Your task to perform on an android device: empty trash in the gmail app Image 0: 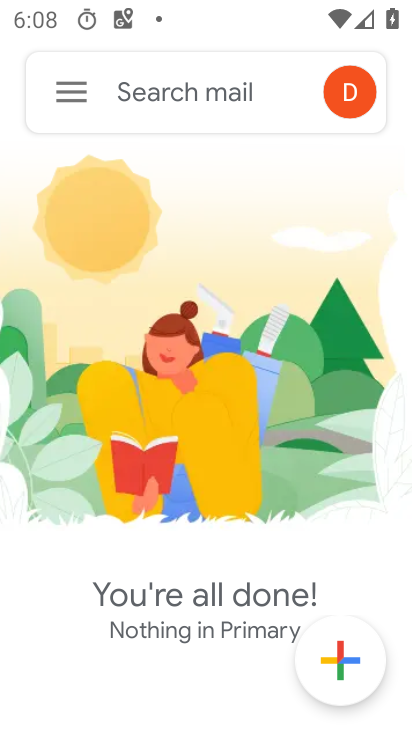
Step 0: press home button
Your task to perform on an android device: empty trash in the gmail app Image 1: 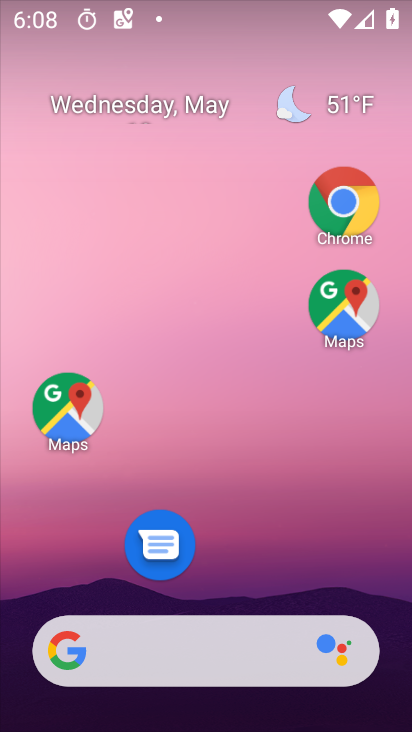
Step 1: drag from (203, 252) to (205, 167)
Your task to perform on an android device: empty trash in the gmail app Image 2: 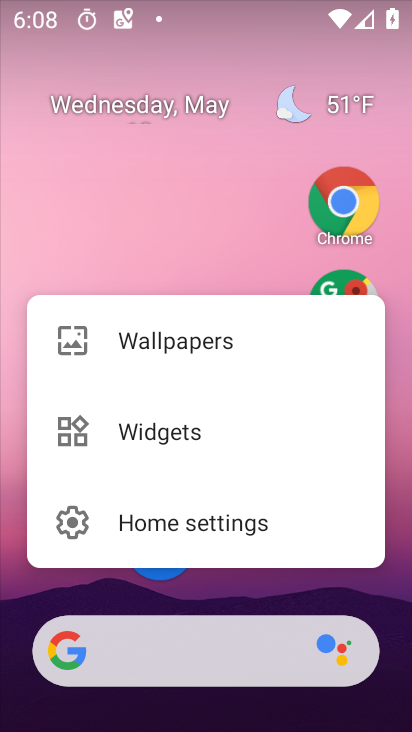
Step 2: click (250, 586)
Your task to perform on an android device: empty trash in the gmail app Image 3: 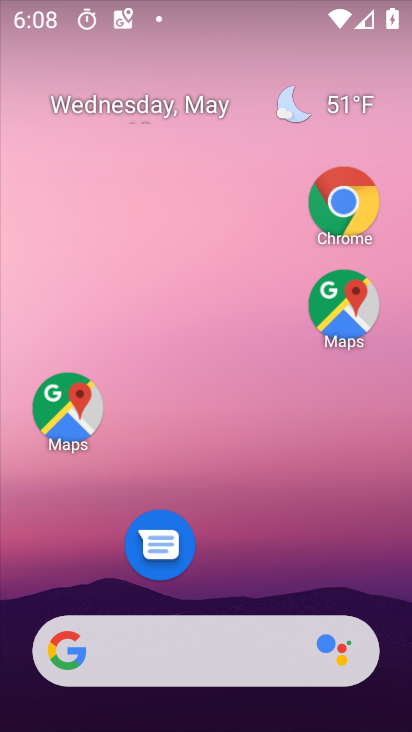
Step 3: drag from (257, 579) to (233, 41)
Your task to perform on an android device: empty trash in the gmail app Image 4: 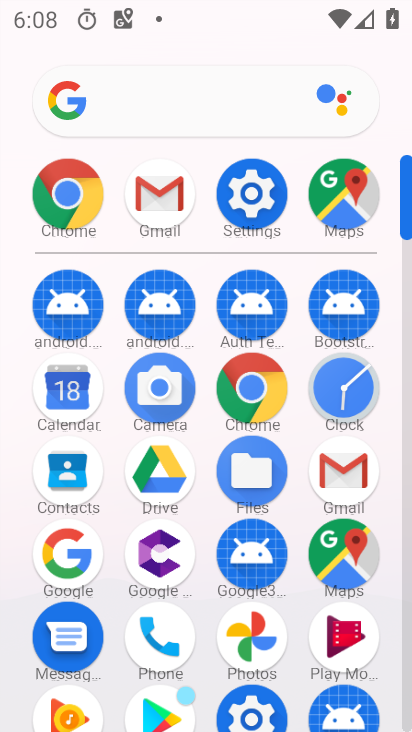
Step 4: click (156, 191)
Your task to perform on an android device: empty trash in the gmail app Image 5: 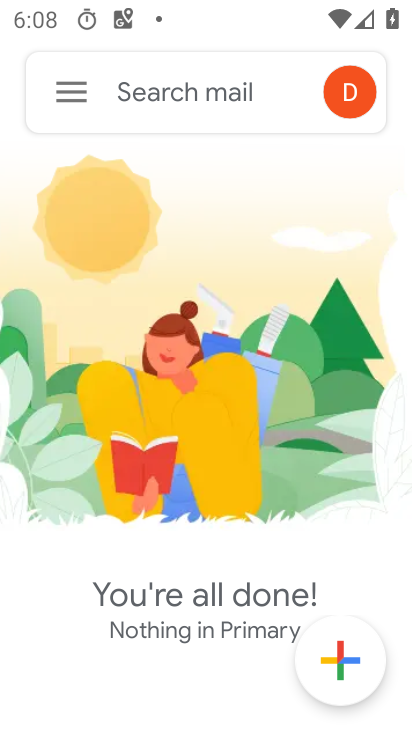
Step 5: click (60, 95)
Your task to perform on an android device: empty trash in the gmail app Image 6: 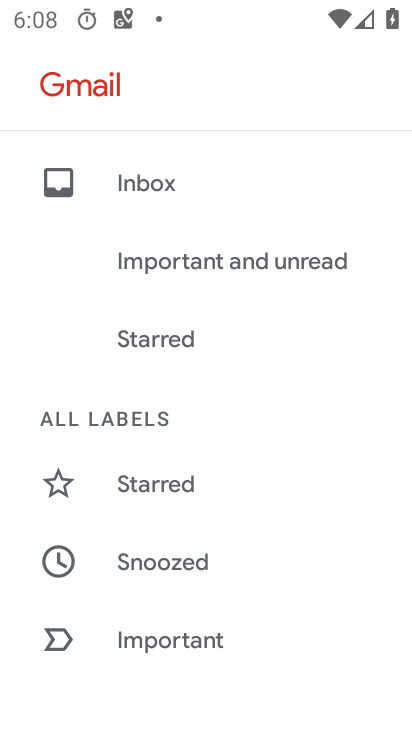
Step 6: drag from (182, 580) to (198, 123)
Your task to perform on an android device: empty trash in the gmail app Image 7: 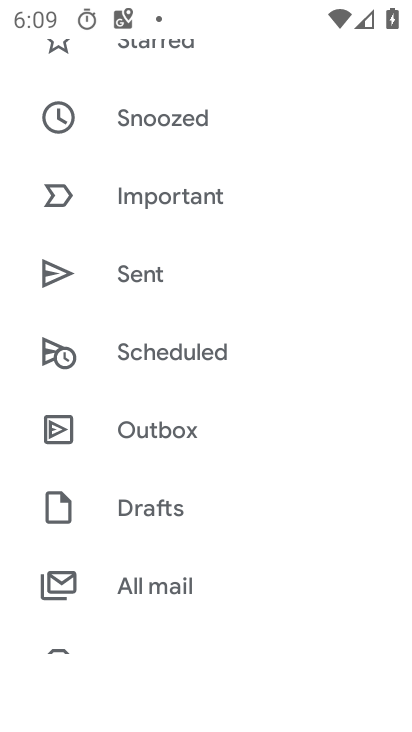
Step 7: drag from (197, 553) to (164, 173)
Your task to perform on an android device: empty trash in the gmail app Image 8: 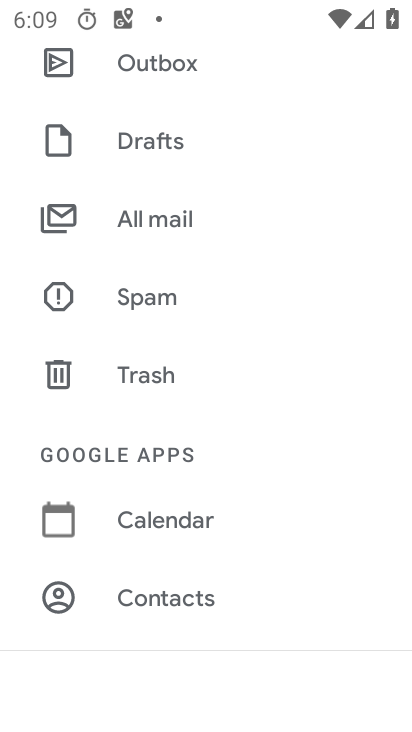
Step 8: drag from (208, 523) to (180, 50)
Your task to perform on an android device: empty trash in the gmail app Image 9: 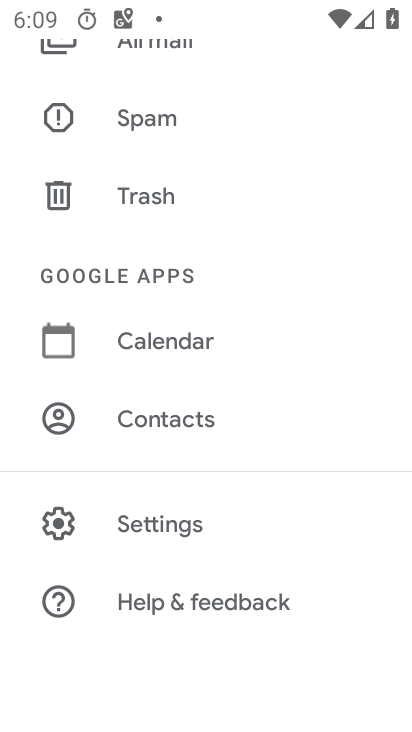
Step 9: click (150, 201)
Your task to perform on an android device: empty trash in the gmail app Image 10: 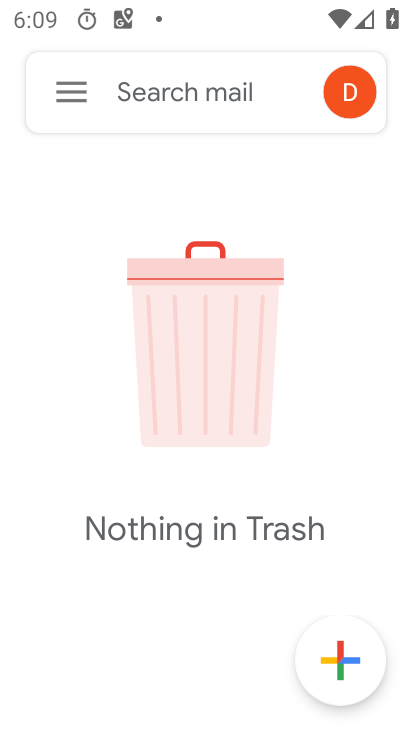
Step 10: task complete